Your task to perform on an android device: Go to Yahoo.com Image 0: 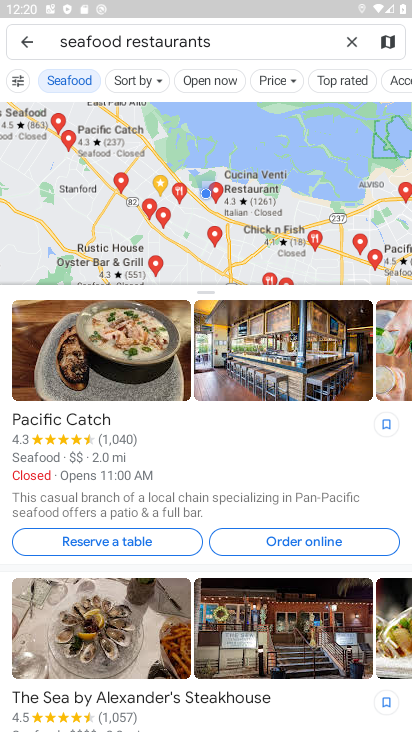
Step 0: press home button
Your task to perform on an android device: Go to Yahoo.com Image 1: 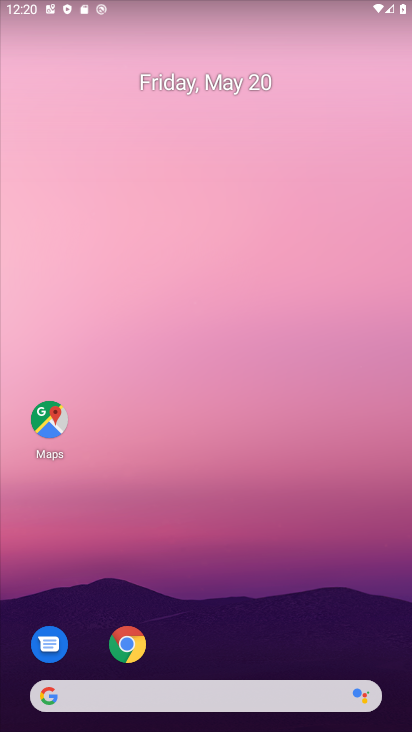
Step 1: click (124, 645)
Your task to perform on an android device: Go to Yahoo.com Image 2: 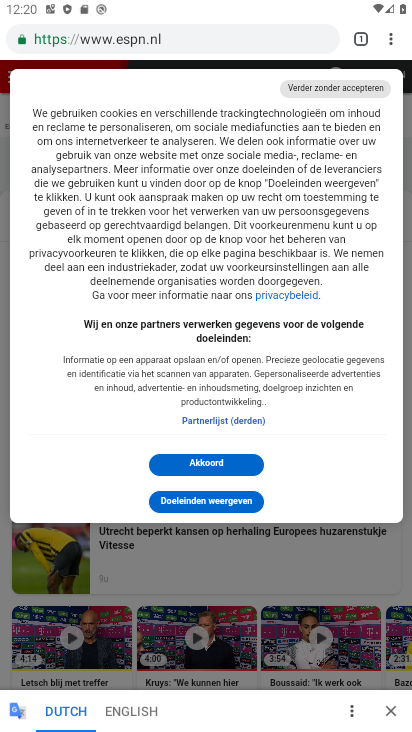
Step 2: click (170, 39)
Your task to perform on an android device: Go to Yahoo.com Image 3: 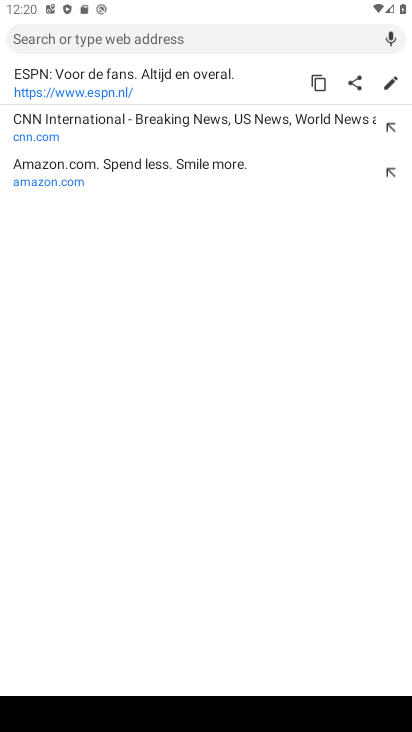
Step 3: type "yahoo.com"
Your task to perform on an android device: Go to Yahoo.com Image 4: 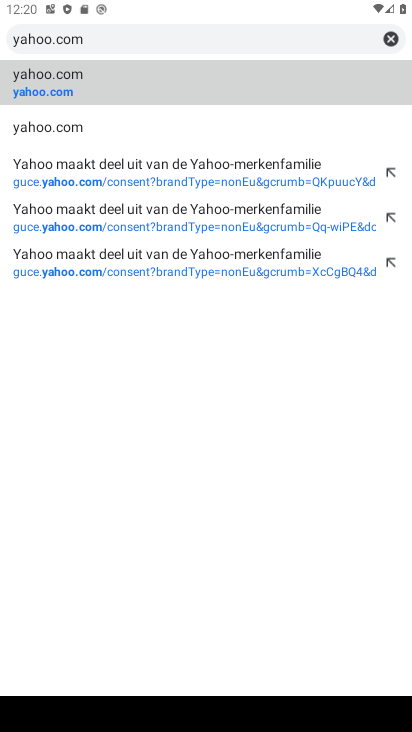
Step 4: click (38, 88)
Your task to perform on an android device: Go to Yahoo.com Image 5: 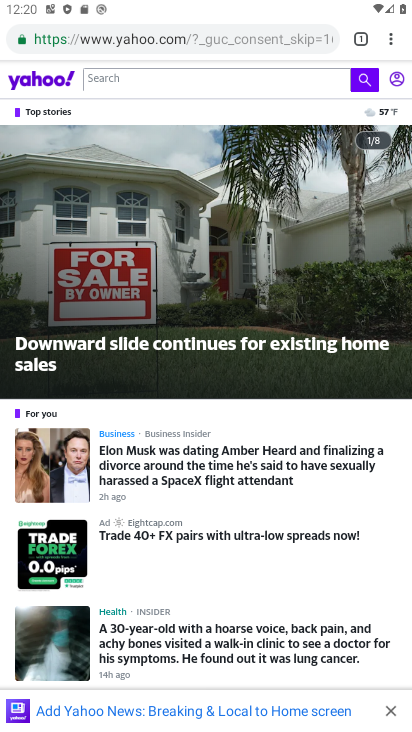
Step 5: task complete